Your task to perform on an android device: Show me productivity apps on the Play Store Image 0: 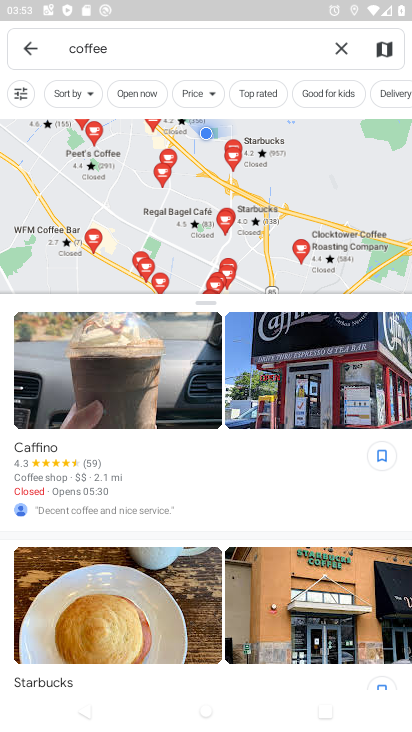
Step 0: press home button
Your task to perform on an android device: Show me productivity apps on the Play Store Image 1: 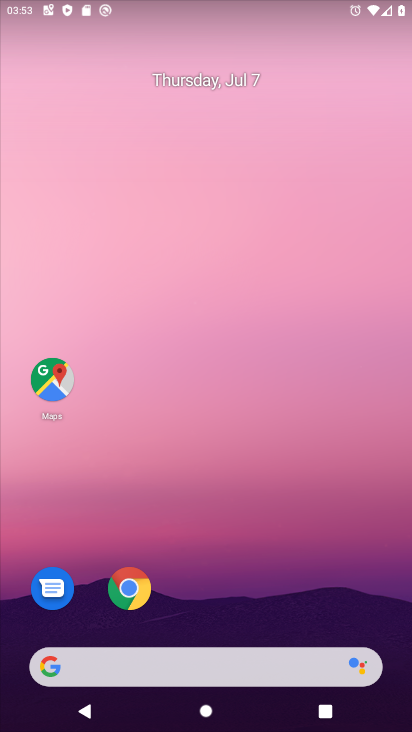
Step 1: drag from (150, 598) to (172, 196)
Your task to perform on an android device: Show me productivity apps on the Play Store Image 2: 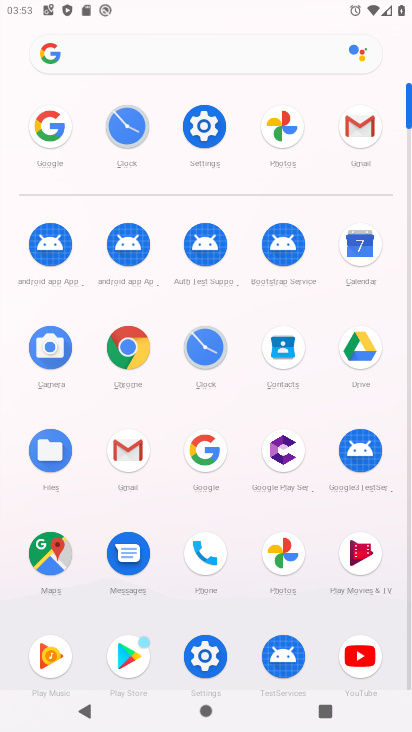
Step 2: click (128, 658)
Your task to perform on an android device: Show me productivity apps on the Play Store Image 3: 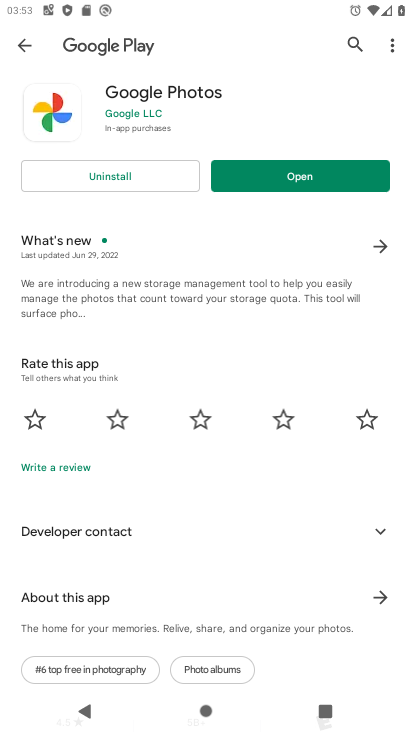
Step 3: click (21, 45)
Your task to perform on an android device: Show me productivity apps on the Play Store Image 4: 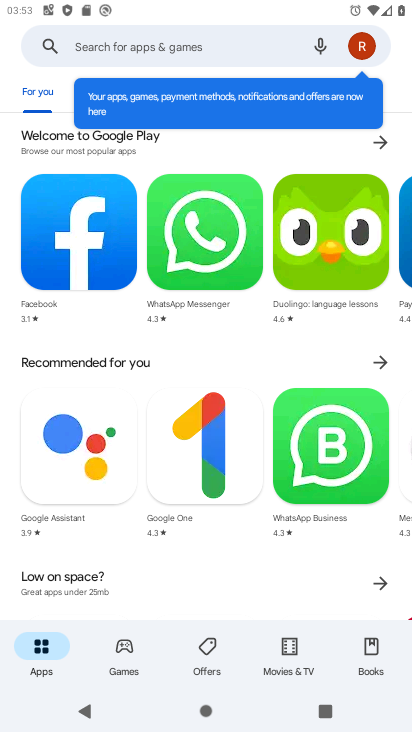
Step 4: task complete